Your task to perform on an android device: What's the weather? Image 0: 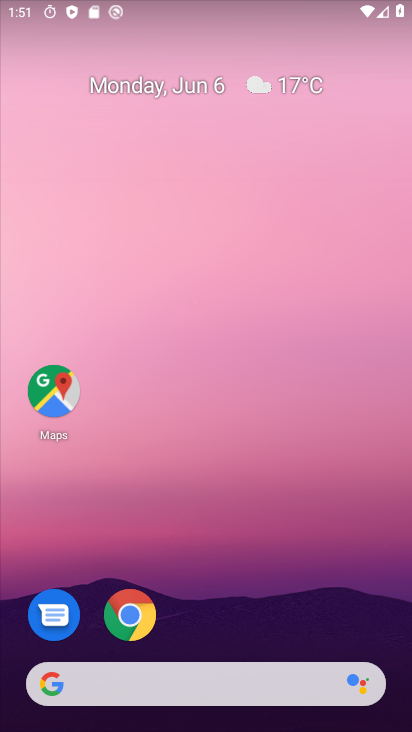
Step 0: drag from (195, 596) to (226, 38)
Your task to perform on an android device: What's the weather? Image 1: 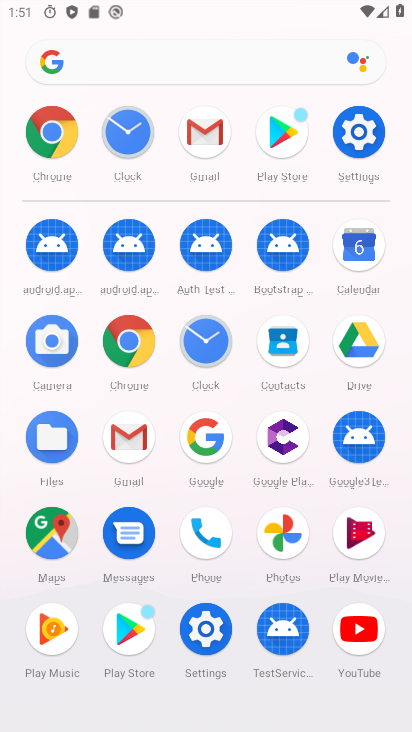
Step 1: click (161, 63)
Your task to perform on an android device: What's the weather? Image 2: 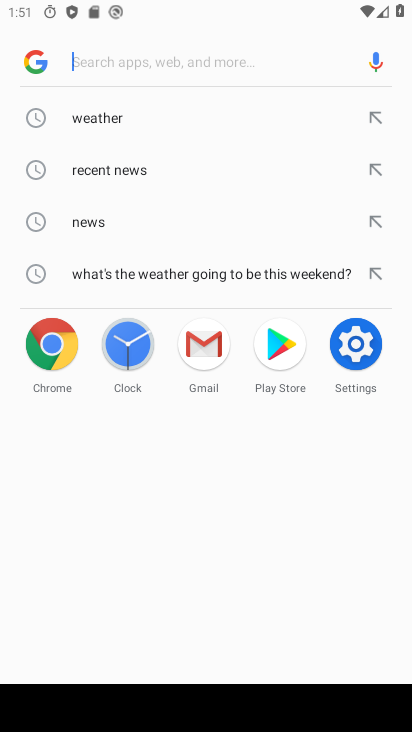
Step 2: click (97, 117)
Your task to perform on an android device: What's the weather? Image 3: 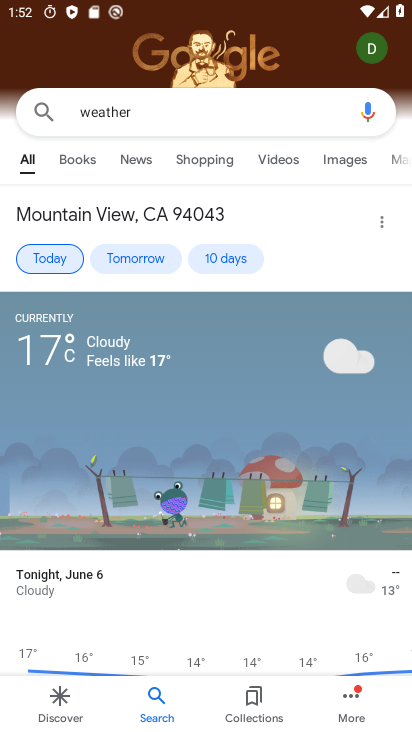
Step 3: task complete